Your task to perform on an android device: What's the weather? Image 0: 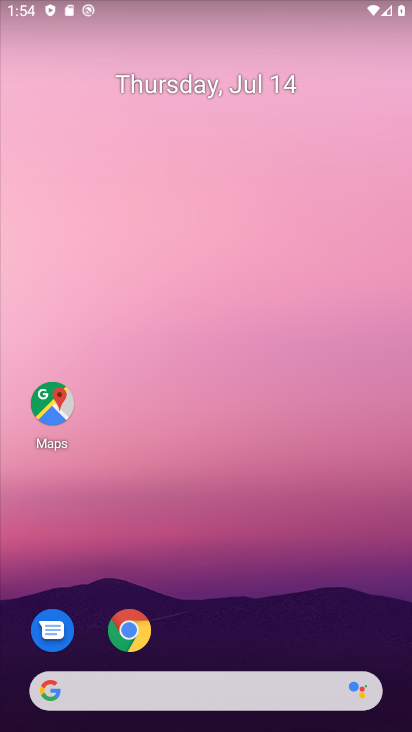
Step 0: drag from (37, 313) to (410, 193)
Your task to perform on an android device: What's the weather? Image 1: 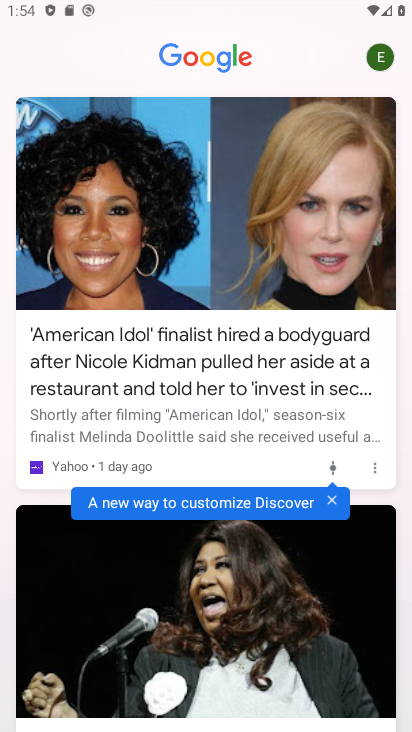
Step 1: drag from (210, 136) to (182, 708)
Your task to perform on an android device: What's the weather? Image 2: 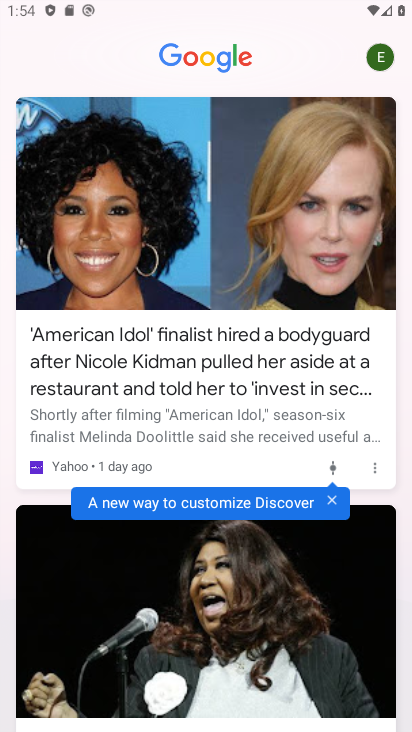
Step 2: drag from (373, 377) to (2, 465)
Your task to perform on an android device: What's the weather? Image 3: 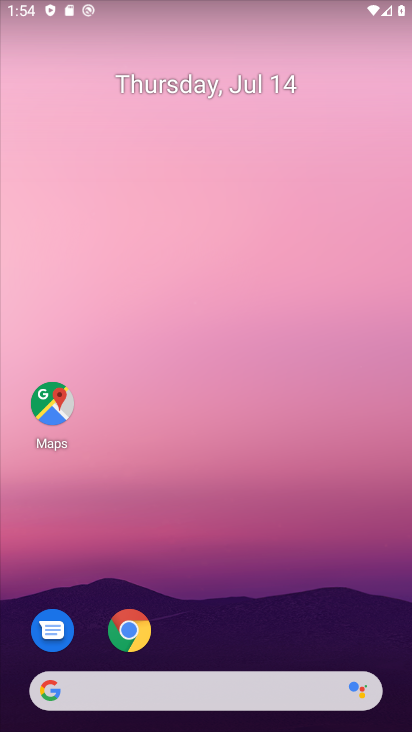
Step 3: click (194, 682)
Your task to perform on an android device: What's the weather? Image 4: 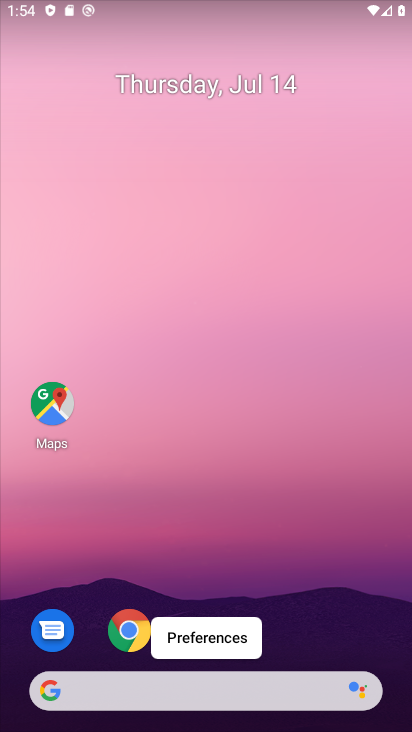
Step 4: click (178, 694)
Your task to perform on an android device: What's the weather? Image 5: 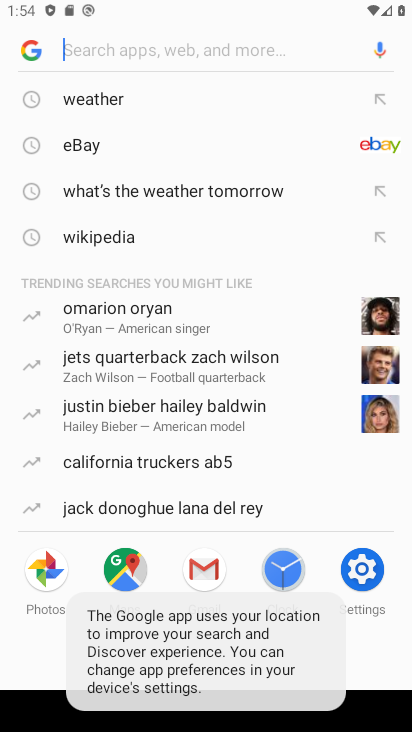
Step 5: click (132, 93)
Your task to perform on an android device: What's the weather? Image 6: 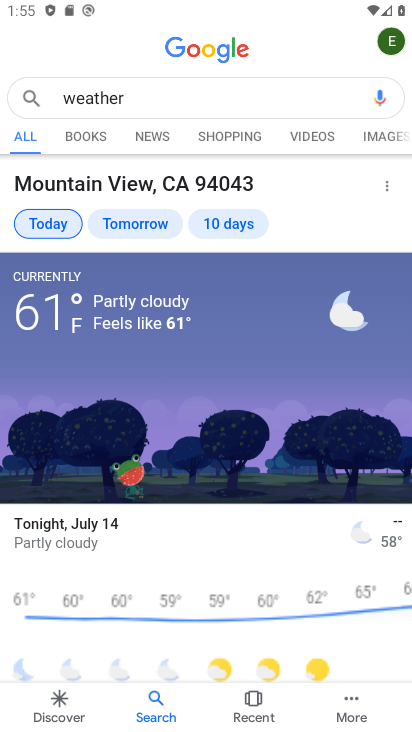
Step 6: click (36, 217)
Your task to perform on an android device: What's the weather? Image 7: 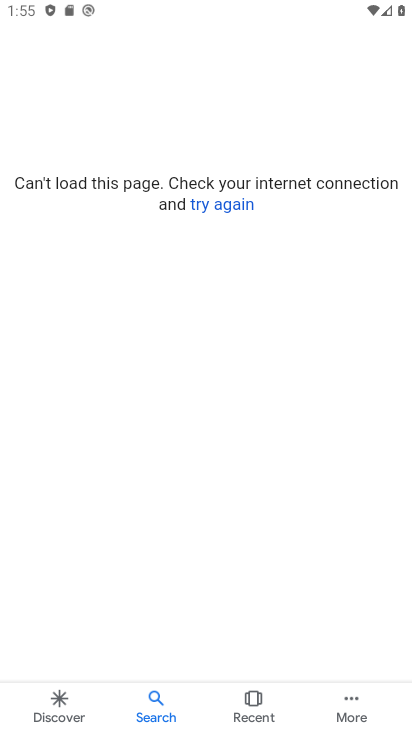
Step 7: click (198, 204)
Your task to perform on an android device: What's the weather? Image 8: 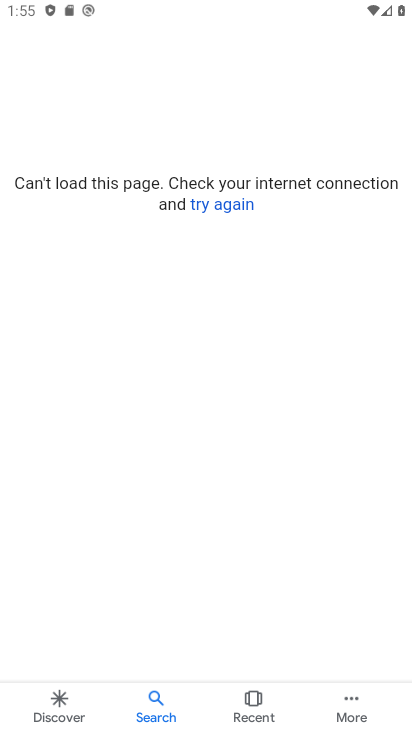
Step 8: click (198, 204)
Your task to perform on an android device: What's the weather? Image 9: 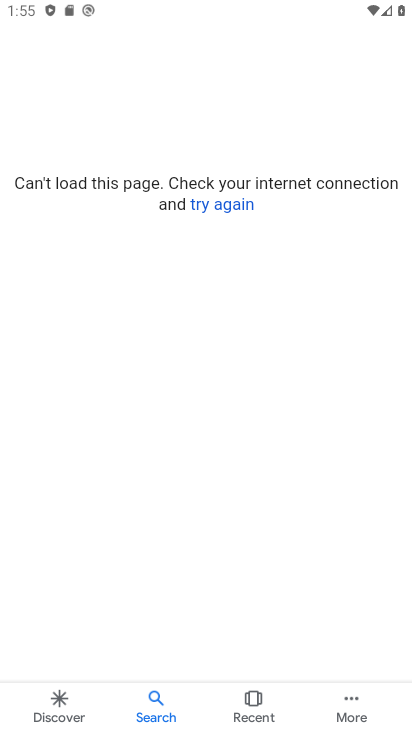
Step 9: task complete